Your task to perform on an android device: Search for pizza restaurants on Maps Image 0: 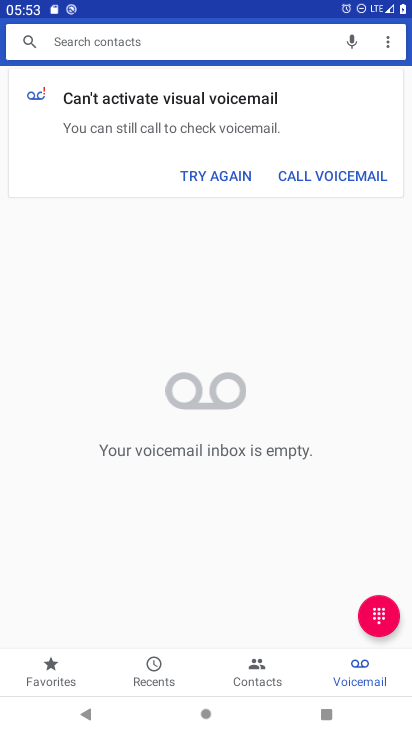
Step 0: press home button
Your task to perform on an android device: Search for pizza restaurants on Maps Image 1: 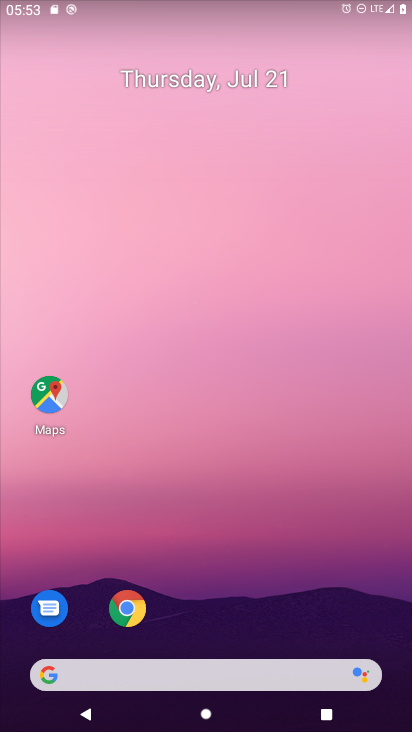
Step 1: drag from (288, 615) to (320, 171)
Your task to perform on an android device: Search for pizza restaurants on Maps Image 2: 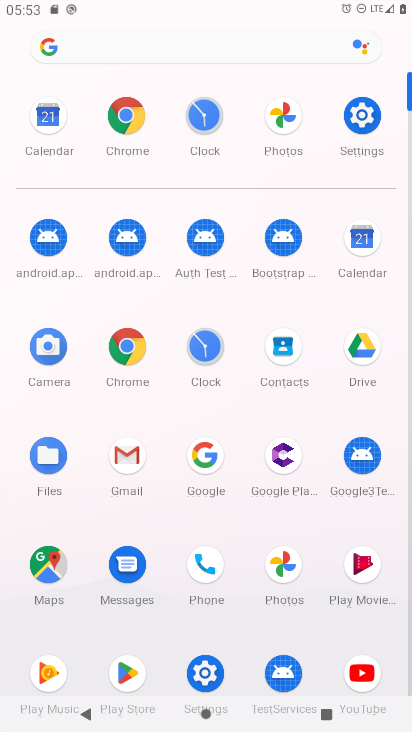
Step 2: click (49, 566)
Your task to perform on an android device: Search for pizza restaurants on Maps Image 3: 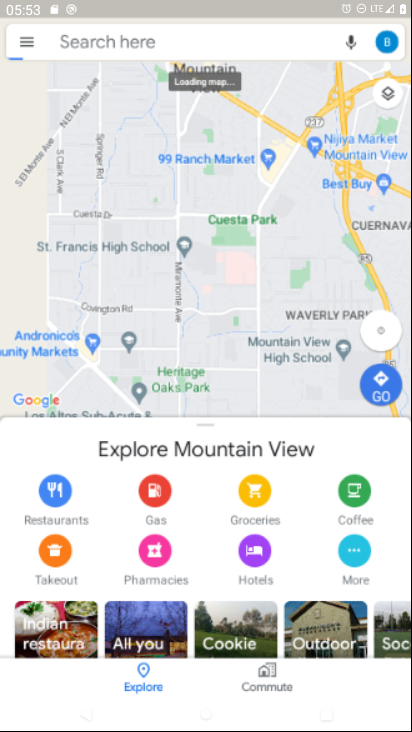
Step 3: click (189, 44)
Your task to perform on an android device: Search for pizza restaurants on Maps Image 4: 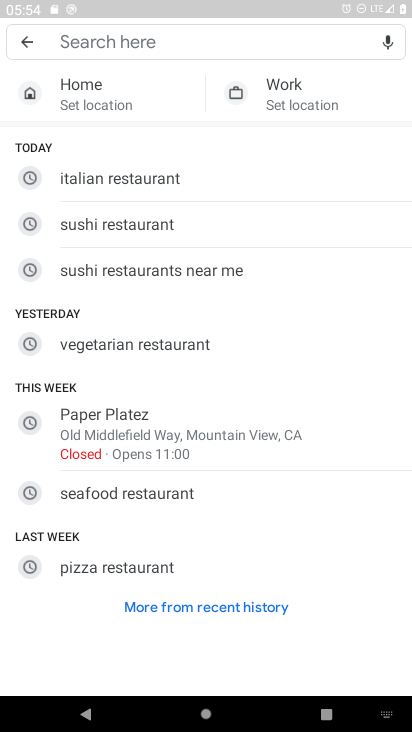
Step 4: click (140, 564)
Your task to perform on an android device: Search for pizza restaurants on Maps Image 5: 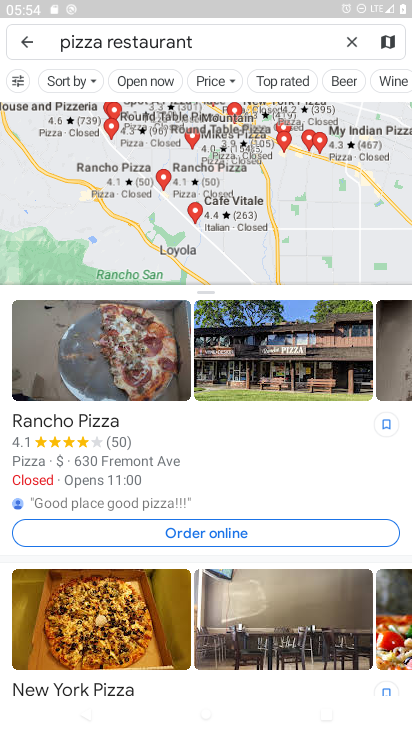
Step 5: task complete